Your task to perform on an android device: change notifications settings Image 0: 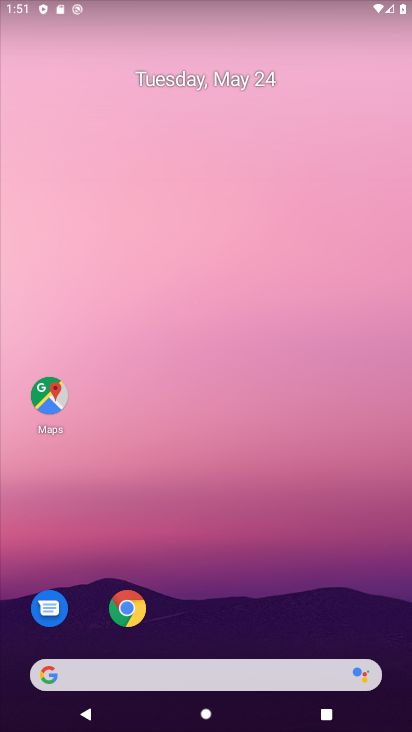
Step 0: drag from (280, 450) to (217, 11)
Your task to perform on an android device: change notifications settings Image 1: 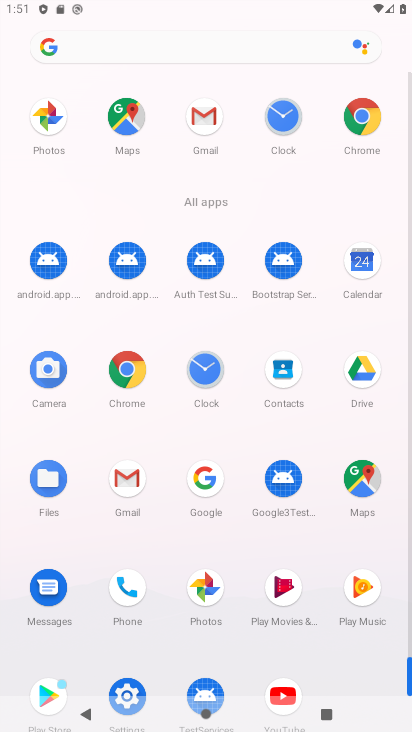
Step 1: drag from (14, 542) to (15, 225)
Your task to perform on an android device: change notifications settings Image 2: 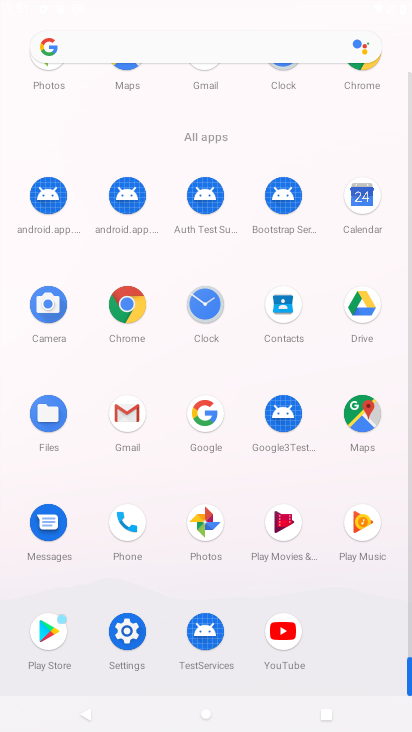
Step 2: click (127, 629)
Your task to perform on an android device: change notifications settings Image 3: 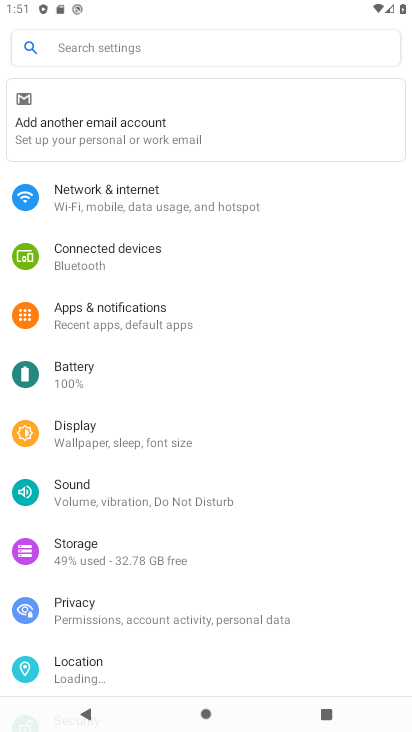
Step 3: click (130, 321)
Your task to perform on an android device: change notifications settings Image 4: 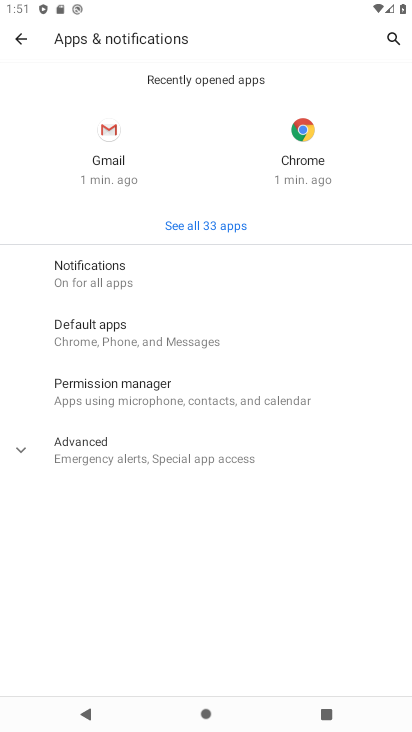
Step 4: click (121, 282)
Your task to perform on an android device: change notifications settings Image 5: 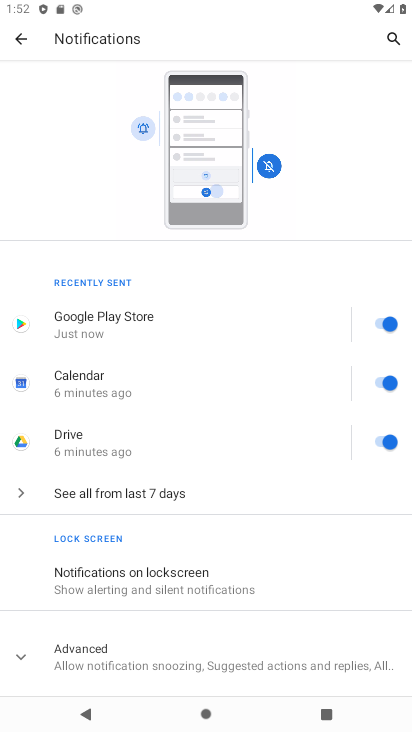
Step 5: drag from (168, 559) to (207, 193)
Your task to perform on an android device: change notifications settings Image 6: 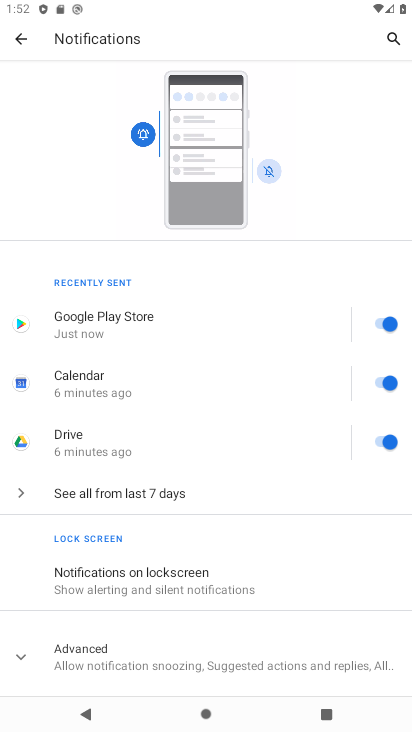
Step 6: click (34, 659)
Your task to perform on an android device: change notifications settings Image 7: 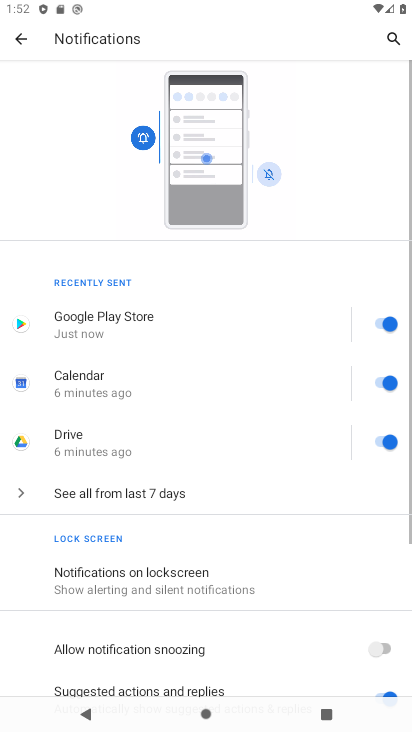
Step 7: task complete